Your task to perform on an android device: see creations saved in the google photos Image 0: 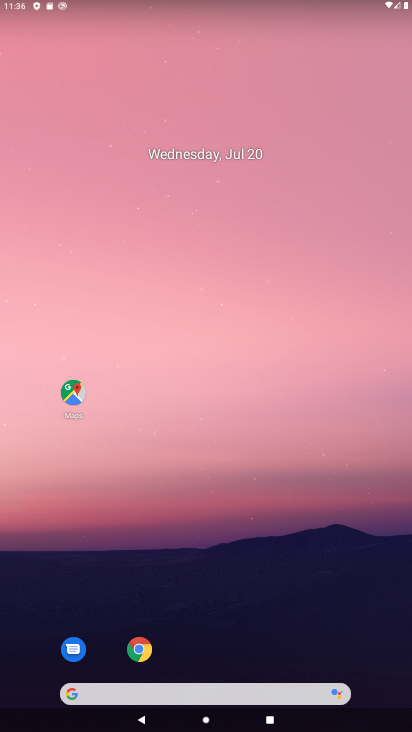
Step 0: drag from (303, 652) to (330, 191)
Your task to perform on an android device: see creations saved in the google photos Image 1: 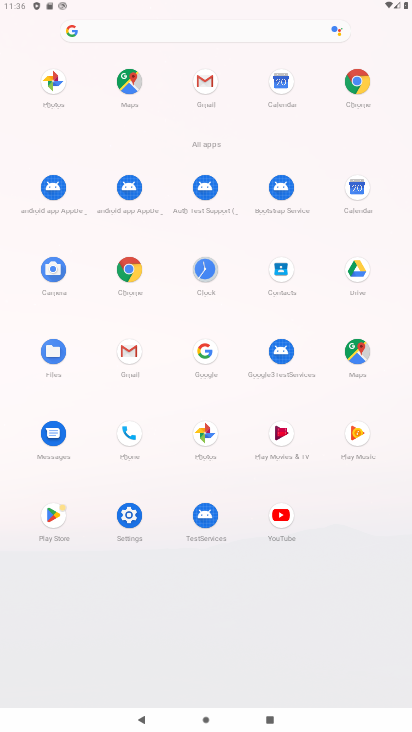
Step 1: click (201, 429)
Your task to perform on an android device: see creations saved in the google photos Image 2: 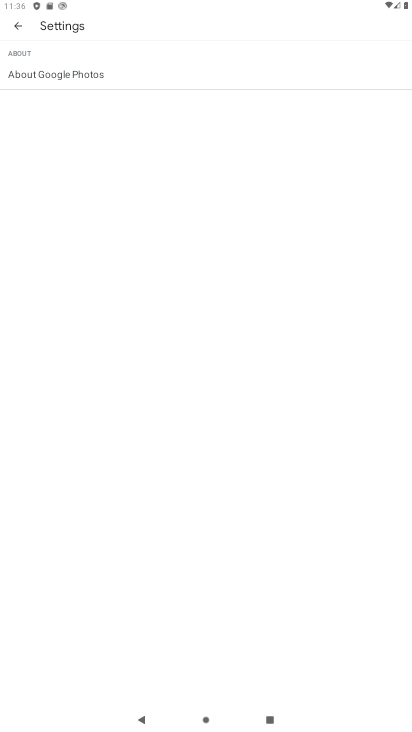
Step 2: click (17, 22)
Your task to perform on an android device: see creations saved in the google photos Image 3: 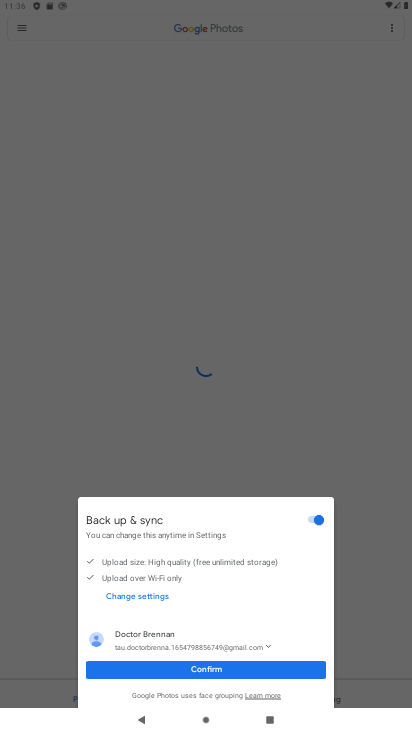
Step 3: click (274, 668)
Your task to perform on an android device: see creations saved in the google photos Image 4: 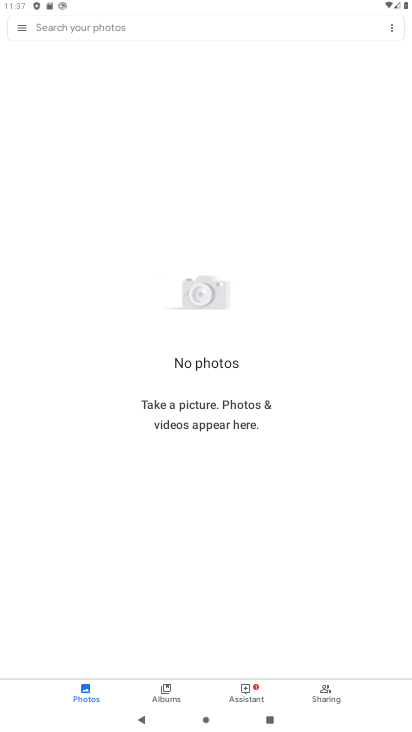
Step 4: click (72, 27)
Your task to perform on an android device: see creations saved in the google photos Image 5: 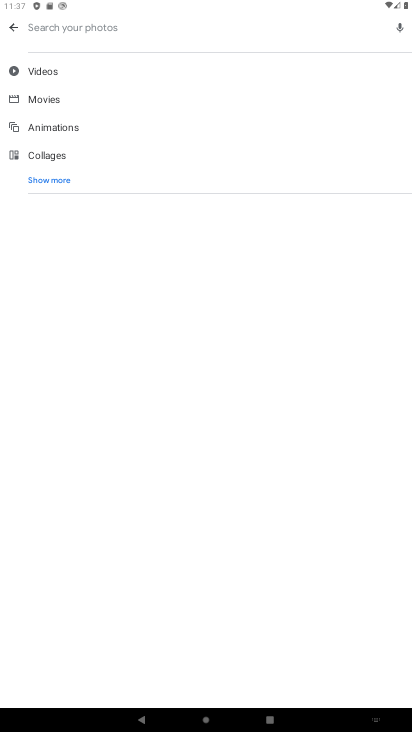
Step 5: click (44, 175)
Your task to perform on an android device: see creations saved in the google photos Image 6: 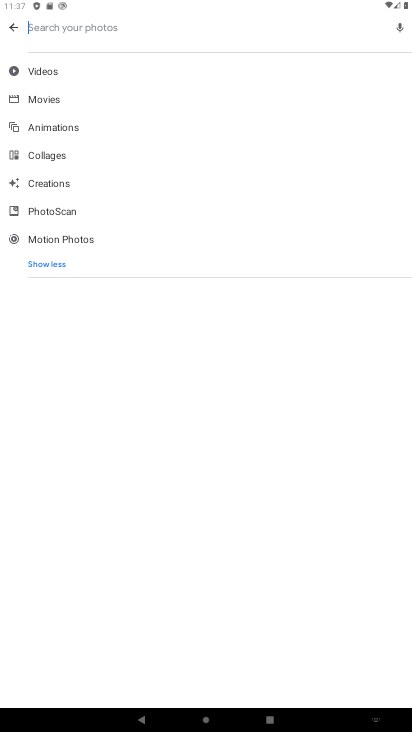
Step 6: click (46, 183)
Your task to perform on an android device: see creations saved in the google photos Image 7: 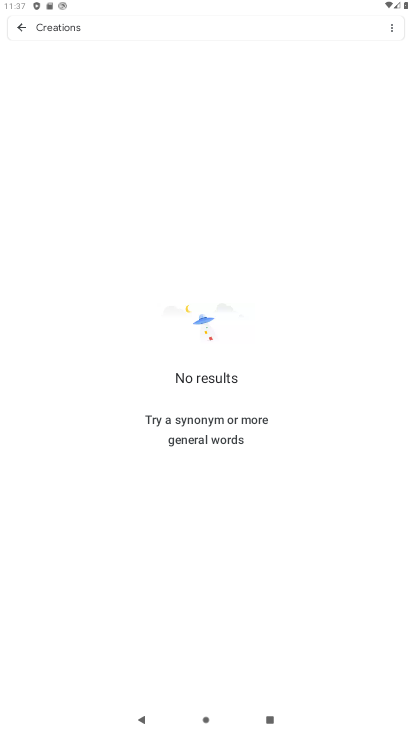
Step 7: task complete